Your task to perform on an android device: Turn off the flashlight Image 0: 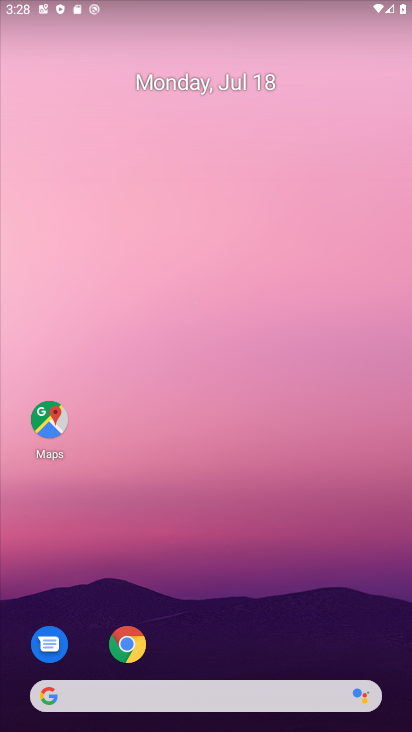
Step 0: drag from (351, 635) to (343, 134)
Your task to perform on an android device: Turn off the flashlight Image 1: 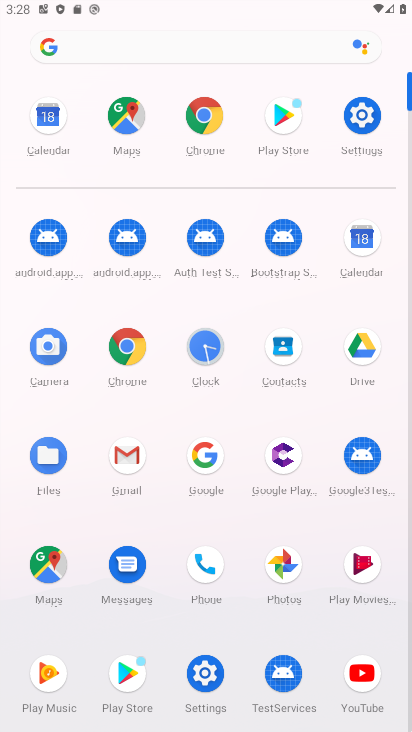
Step 1: drag from (220, 14) to (267, 428)
Your task to perform on an android device: Turn off the flashlight Image 2: 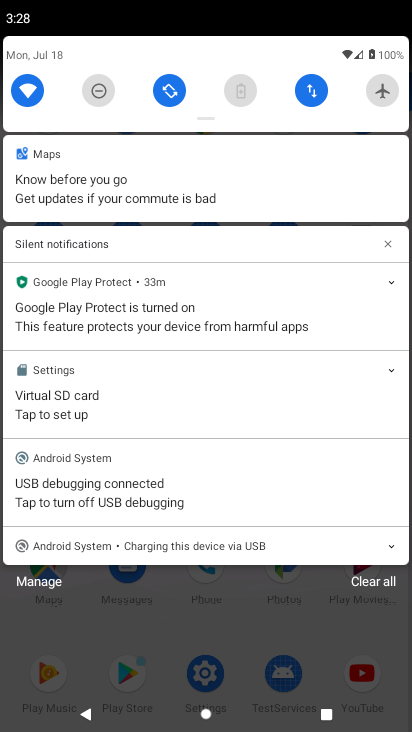
Step 2: drag from (209, 114) to (207, 440)
Your task to perform on an android device: Turn off the flashlight Image 3: 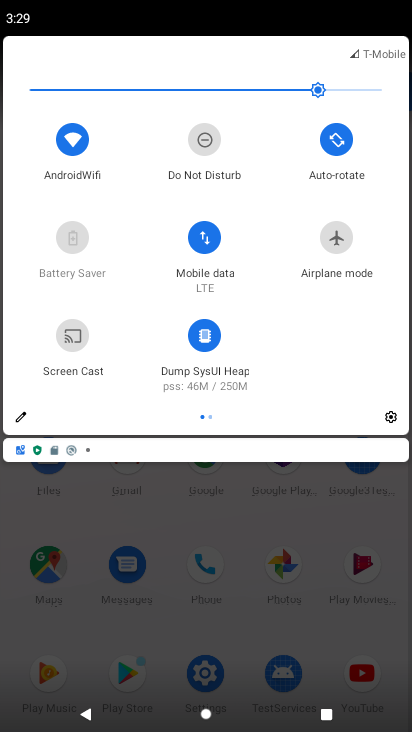
Step 3: click (16, 415)
Your task to perform on an android device: Turn off the flashlight Image 4: 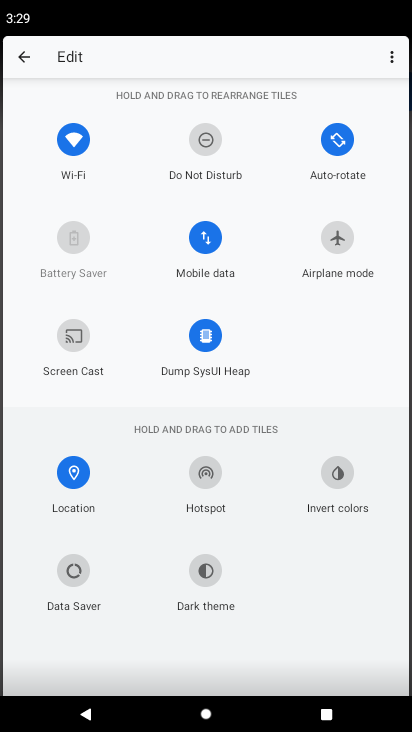
Step 4: task complete